Your task to perform on an android device: turn off location history Image 0: 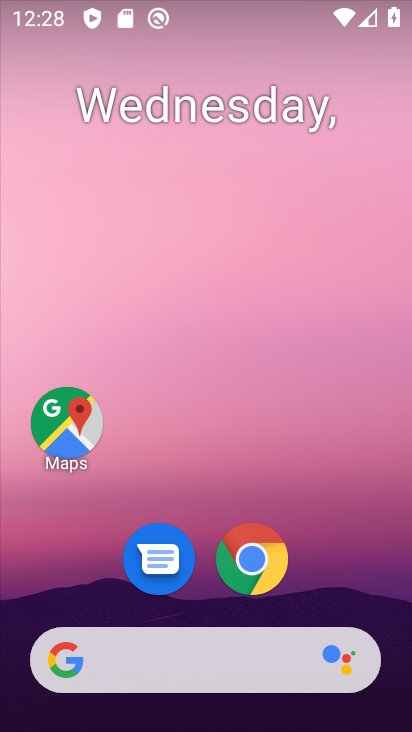
Step 0: click (337, 56)
Your task to perform on an android device: turn off location history Image 1: 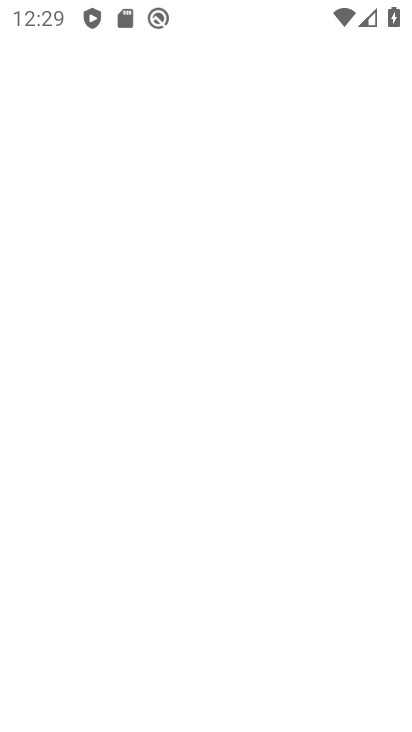
Step 1: press home button
Your task to perform on an android device: turn off location history Image 2: 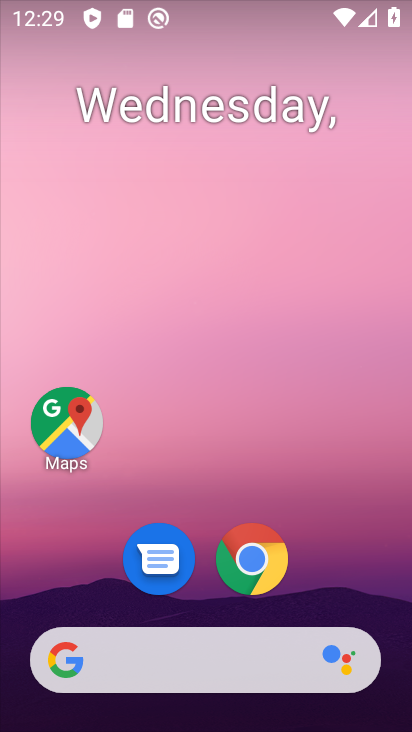
Step 2: drag from (328, 548) to (366, 69)
Your task to perform on an android device: turn off location history Image 3: 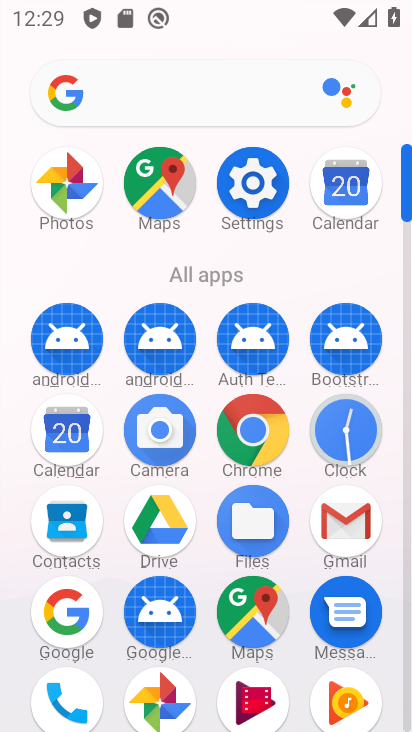
Step 3: click (259, 190)
Your task to perform on an android device: turn off location history Image 4: 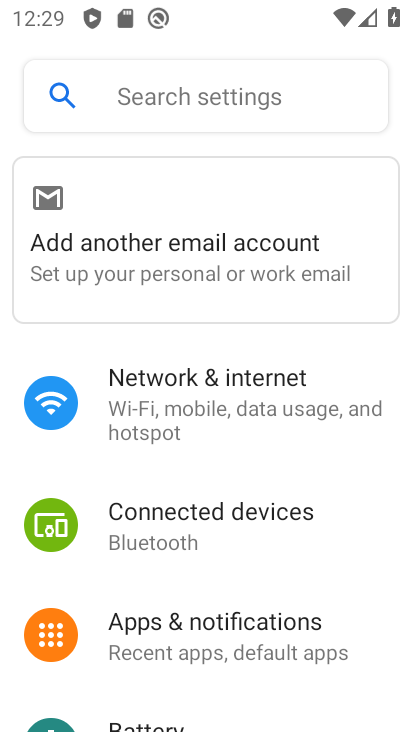
Step 4: drag from (211, 595) to (225, 254)
Your task to perform on an android device: turn off location history Image 5: 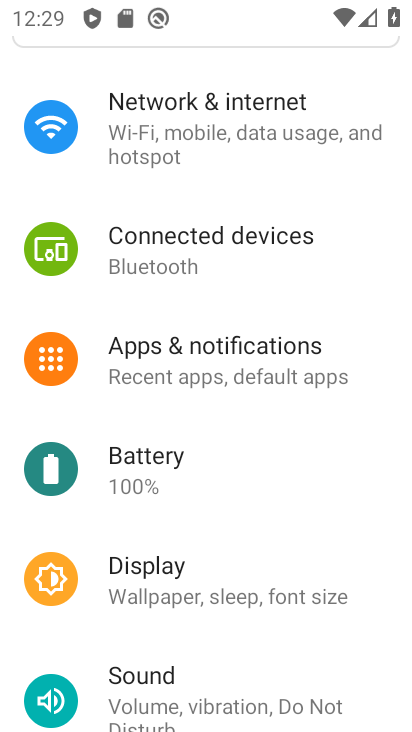
Step 5: drag from (207, 667) to (181, 243)
Your task to perform on an android device: turn off location history Image 6: 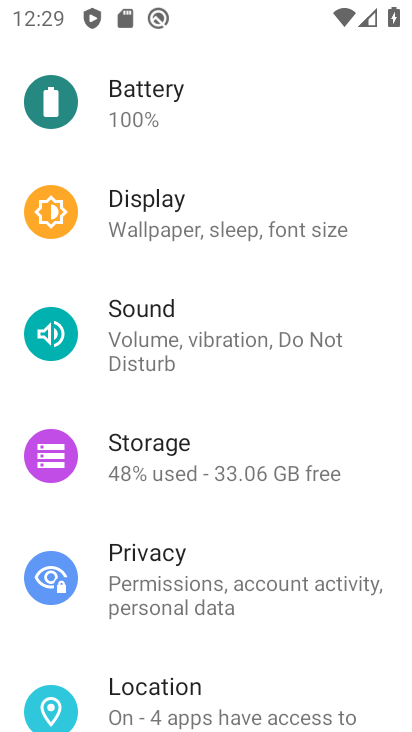
Step 6: click (168, 692)
Your task to perform on an android device: turn off location history Image 7: 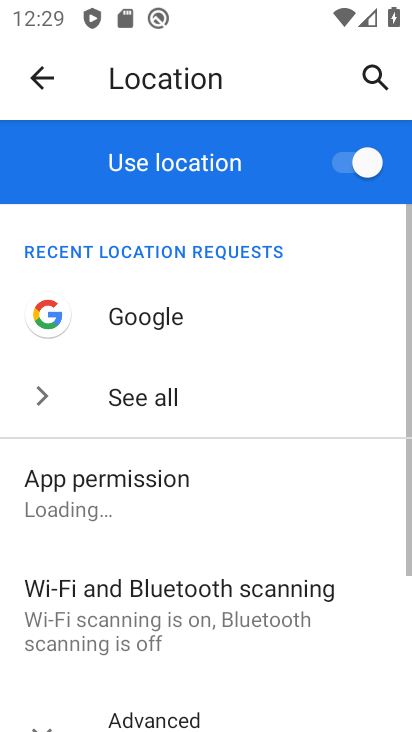
Step 7: drag from (190, 572) to (175, 261)
Your task to perform on an android device: turn off location history Image 8: 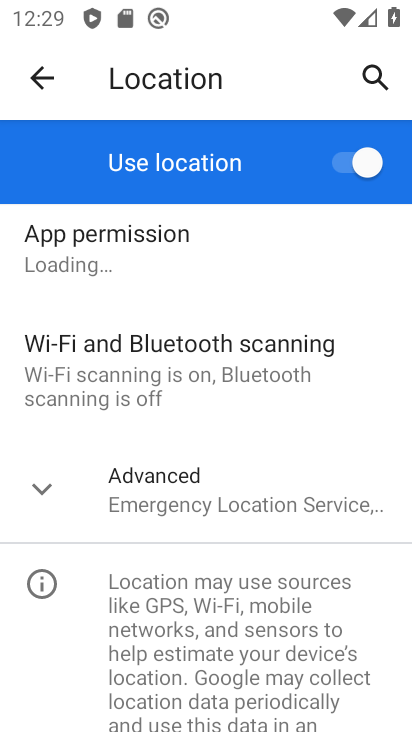
Step 8: click (166, 494)
Your task to perform on an android device: turn off location history Image 9: 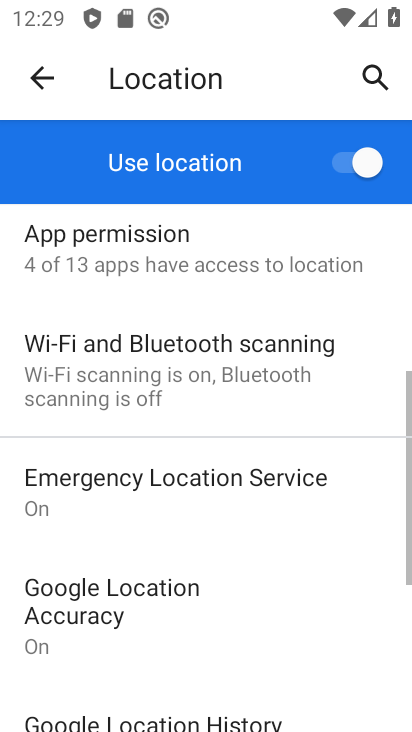
Step 9: drag from (139, 630) to (131, 384)
Your task to perform on an android device: turn off location history Image 10: 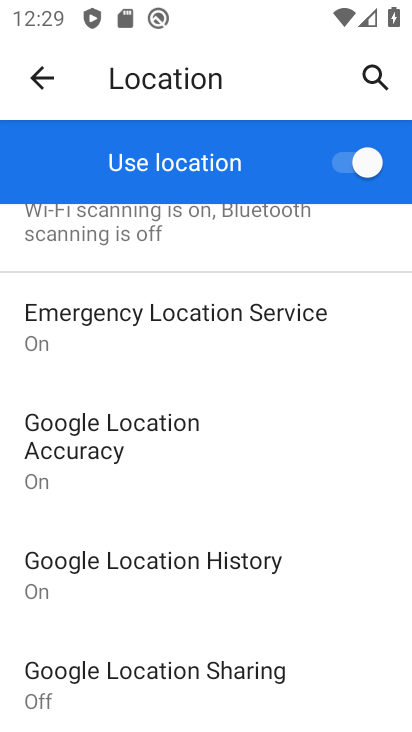
Step 10: click (74, 567)
Your task to perform on an android device: turn off location history Image 11: 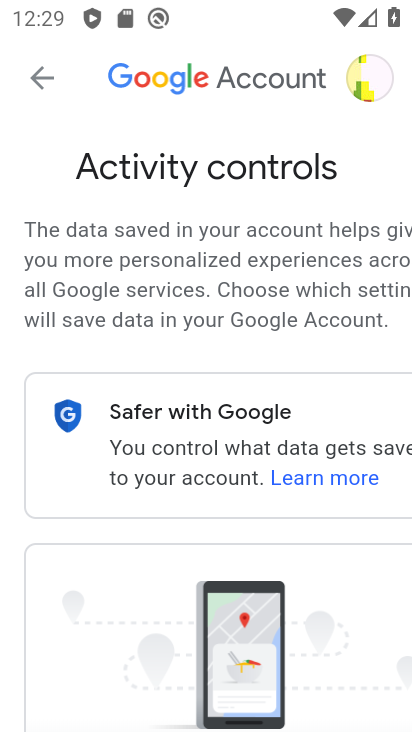
Step 11: drag from (115, 661) to (97, 277)
Your task to perform on an android device: turn off location history Image 12: 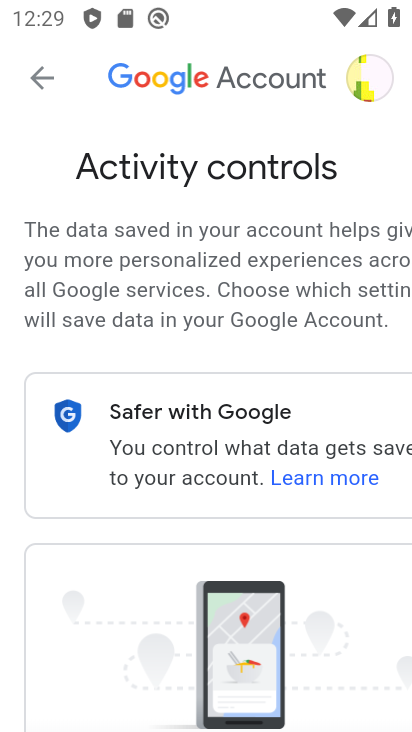
Step 12: drag from (111, 550) to (136, 198)
Your task to perform on an android device: turn off location history Image 13: 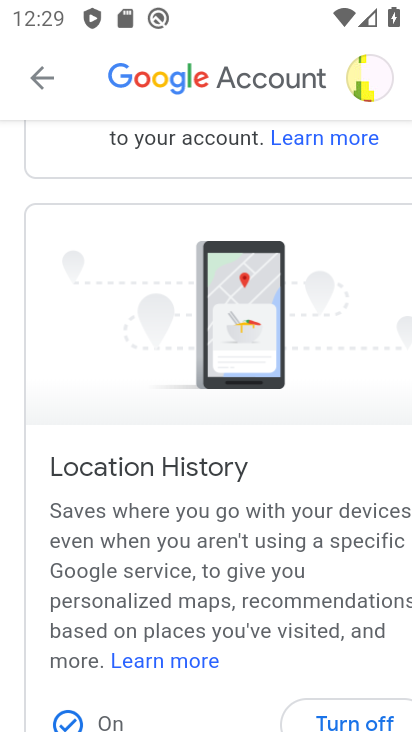
Step 13: click (352, 722)
Your task to perform on an android device: turn off location history Image 14: 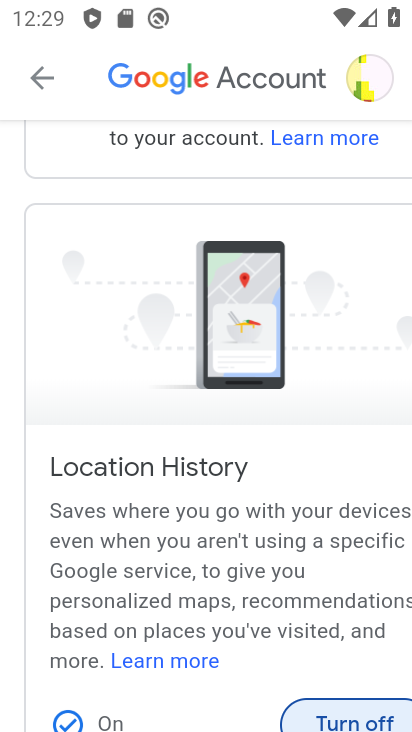
Step 14: drag from (280, 617) to (305, 360)
Your task to perform on an android device: turn off location history Image 15: 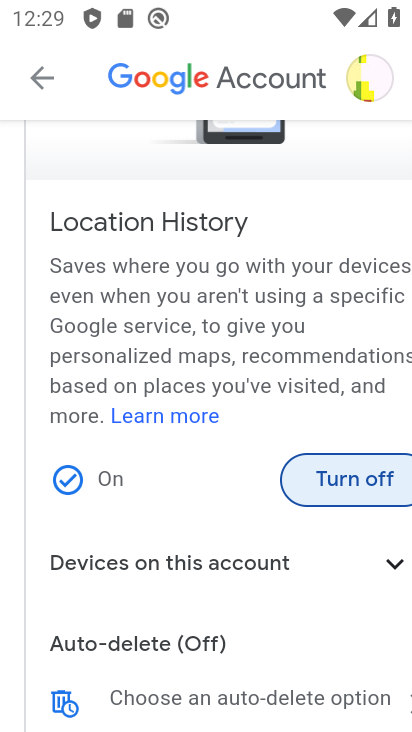
Step 15: click (336, 461)
Your task to perform on an android device: turn off location history Image 16: 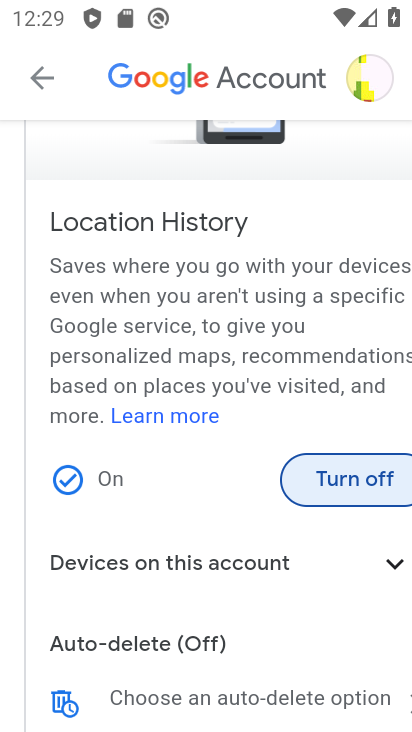
Step 16: click (345, 478)
Your task to perform on an android device: turn off location history Image 17: 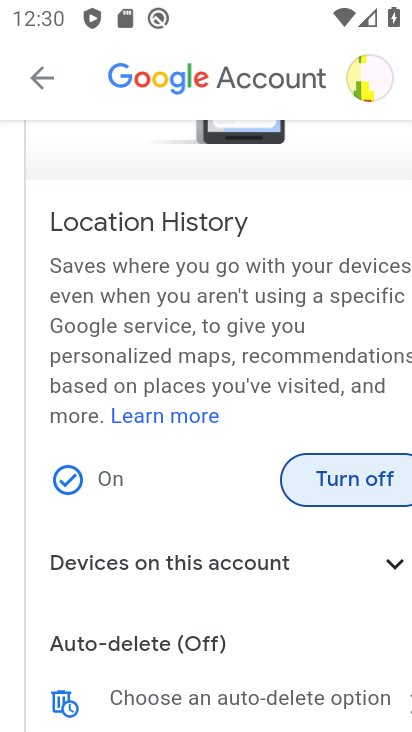
Step 17: click (345, 478)
Your task to perform on an android device: turn off location history Image 18: 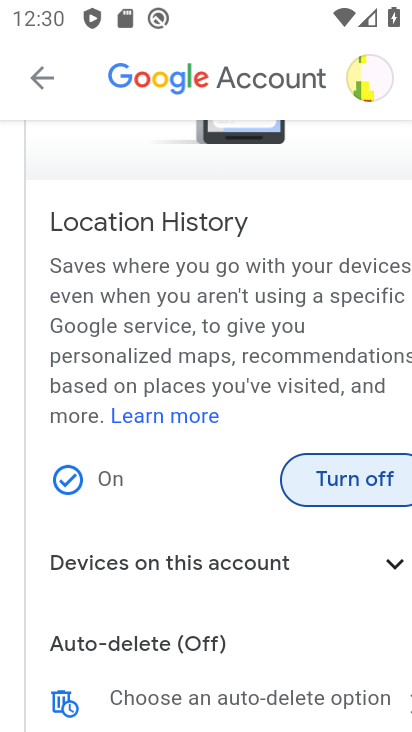
Step 18: click (345, 478)
Your task to perform on an android device: turn off location history Image 19: 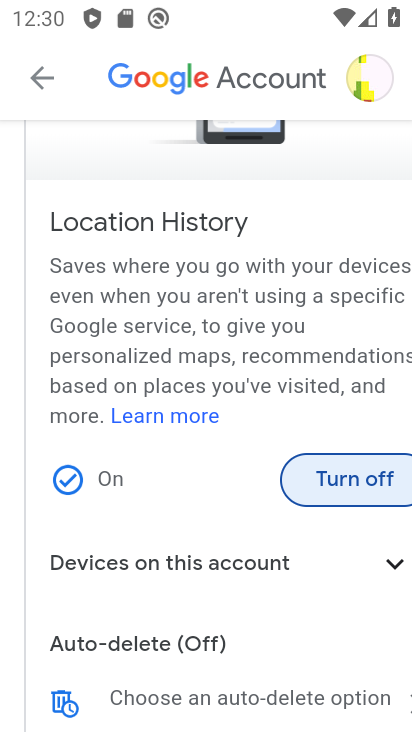
Step 19: drag from (281, 628) to (287, 354)
Your task to perform on an android device: turn off location history Image 20: 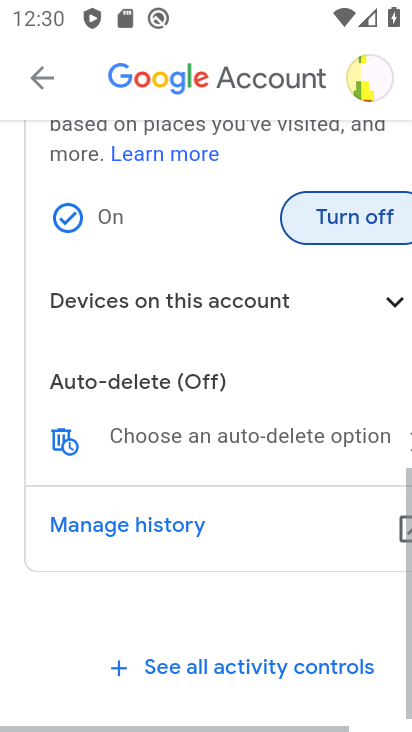
Step 20: click (331, 225)
Your task to perform on an android device: turn off location history Image 21: 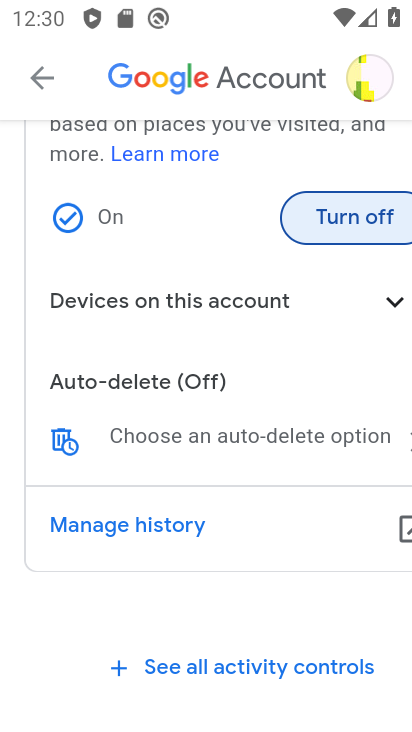
Step 21: click (332, 214)
Your task to perform on an android device: turn off location history Image 22: 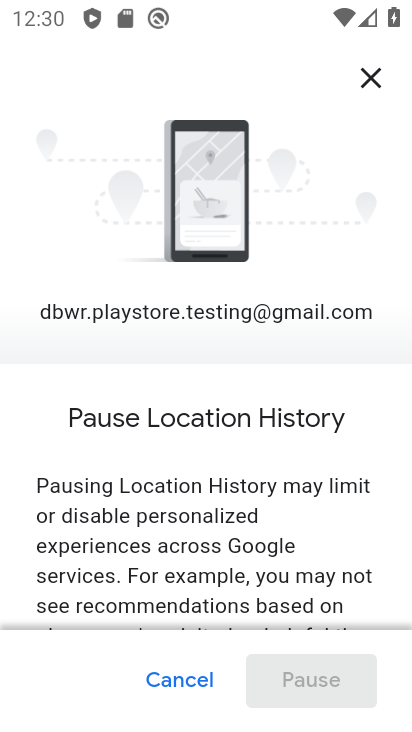
Step 22: drag from (257, 432) to (218, 124)
Your task to perform on an android device: turn off location history Image 23: 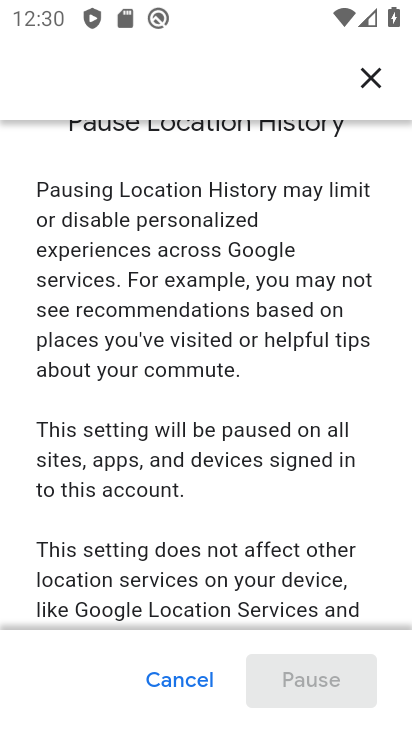
Step 23: drag from (182, 595) to (191, 155)
Your task to perform on an android device: turn off location history Image 24: 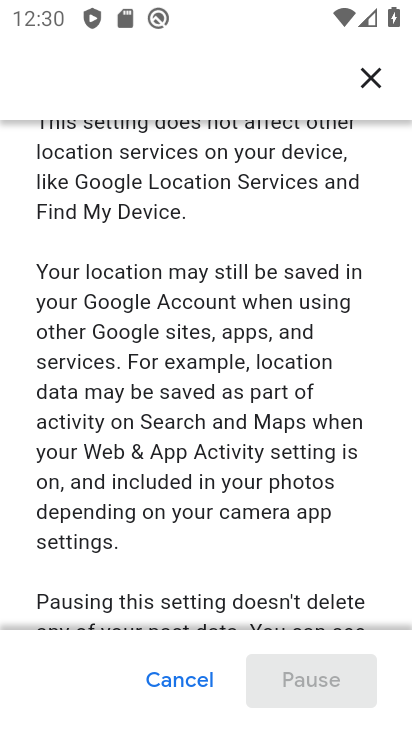
Step 24: drag from (207, 584) to (227, 259)
Your task to perform on an android device: turn off location history Image 25: 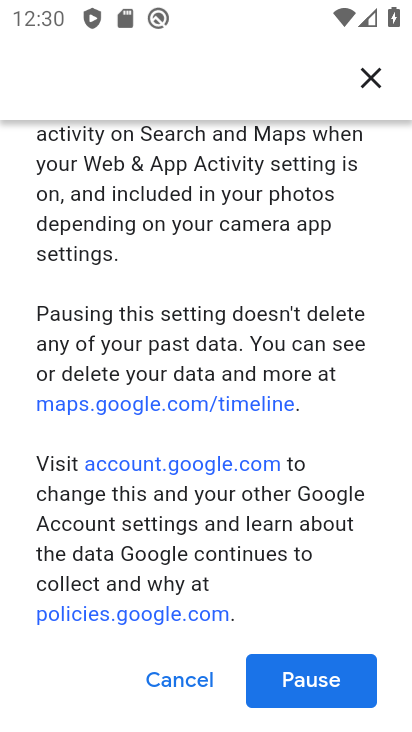
Step 25: drag from (290, 597) to (304, 302)
Your task to perform on an android device: turn off location history Image 26: 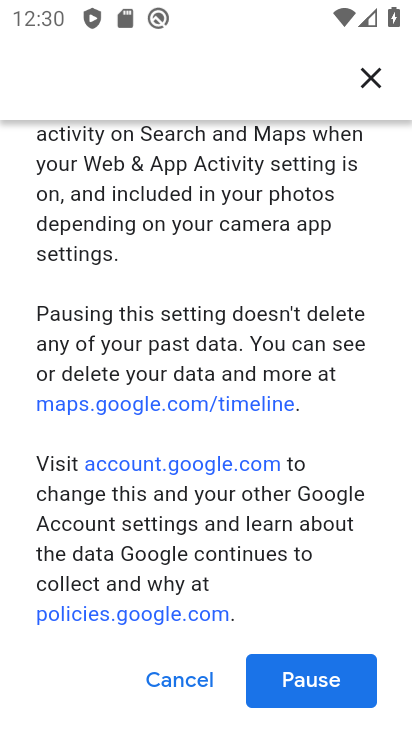
Step 26: click (309, 696)
Your task to perform on an android device: turn off location history Image 27: 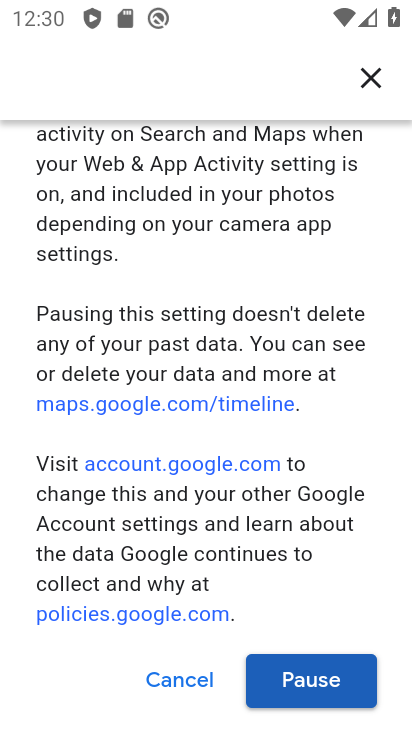
Step 27: click (309, 690)
Your task to perform on an android device: turn off location history Image 28: 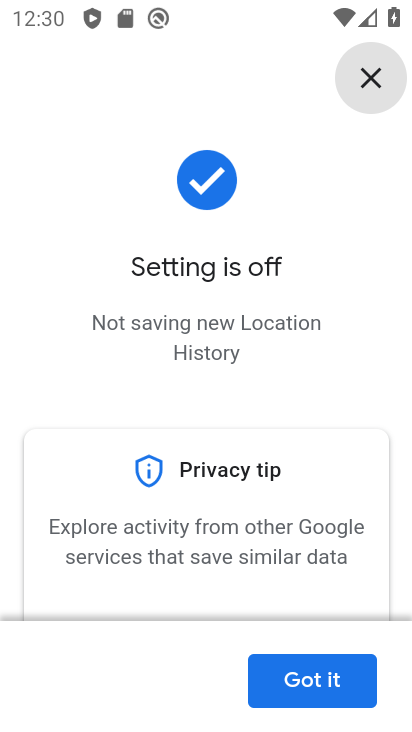
Step 28: task complete